Your task to perform on an android device: turn notification dots on Image 0: 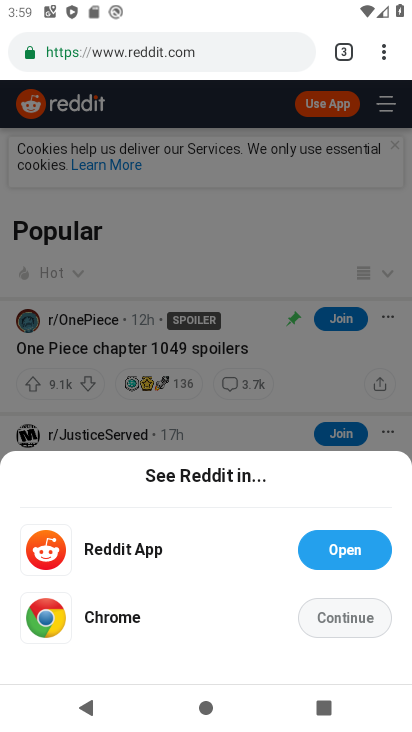
Step 0: press home button
Your task to perform on an android device: turn notification dots on Image 1: 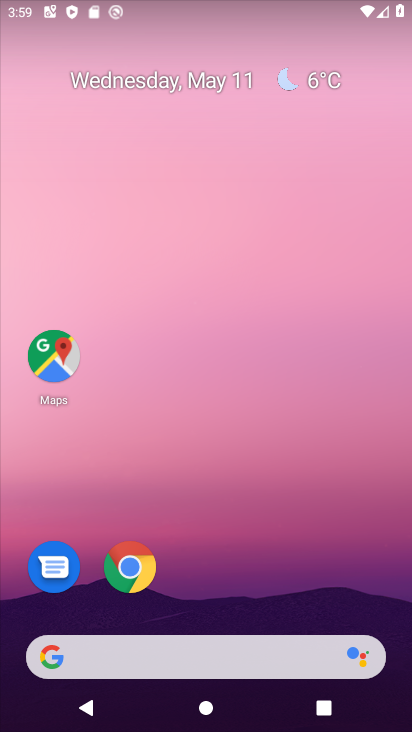
Step 1: drag from (293, 599) to (285, 193)
Your task to perform on an android device: turn notification dots on Image 2: 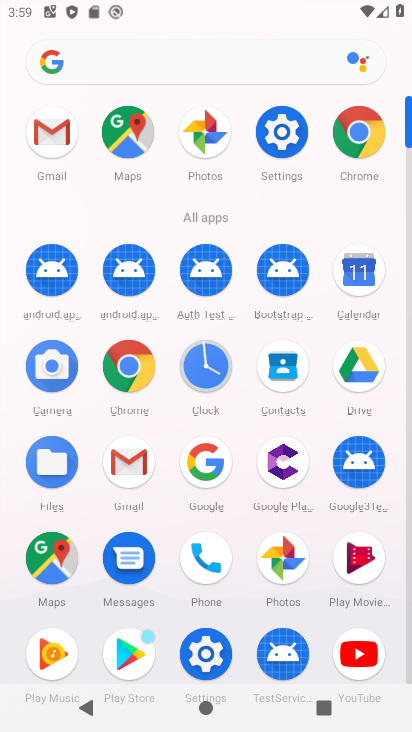
Step 2: click (282, 135)
Your task to perform on an android device: turn notification dots on Image 3: 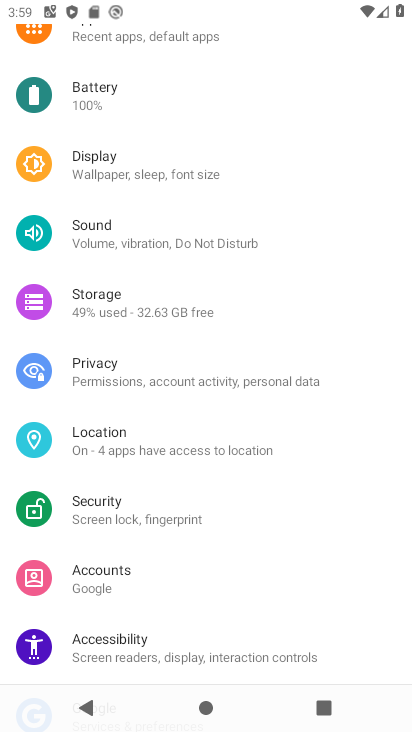
Step 3: drag from (183, 130) to (208, 636)
Your task to perform on an android device: turn notification dots on Image 4: 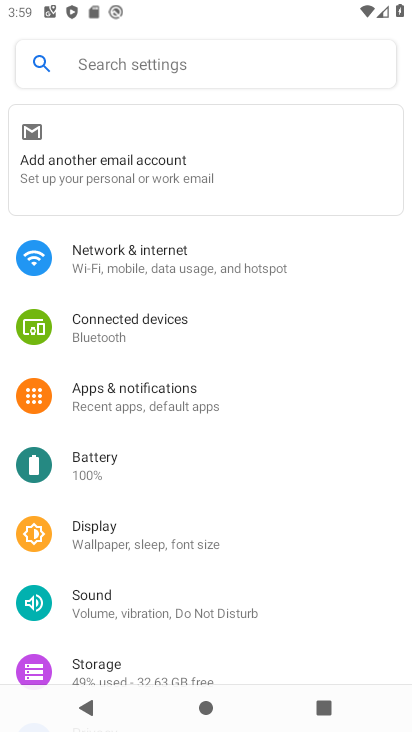
Step 4: click (172, 47)
Your task to perform on an android device: turn notification dots on Image 5: 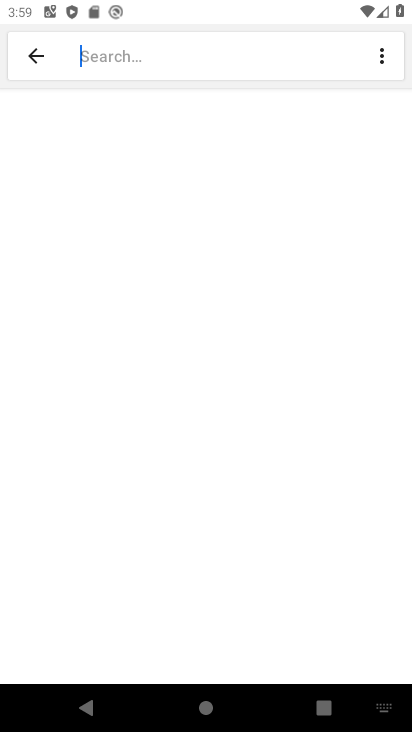
Step 5: click (145, 47)
Your task to perform on an android device: turn notification dots on Image 6: 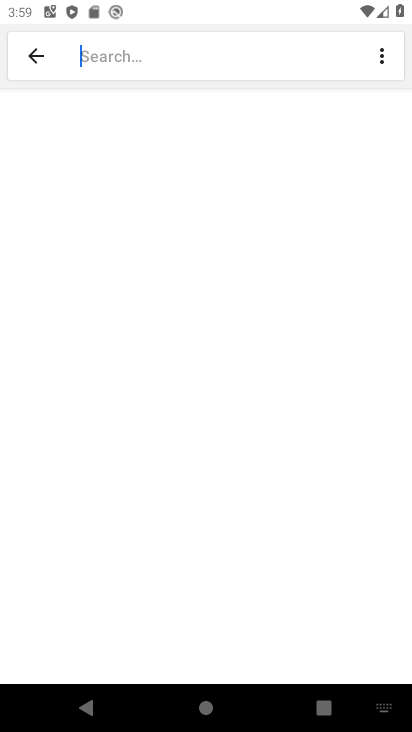
Step 6: type "notification dots"
Your task to perform on an android device: turn notification dots on Image 7: 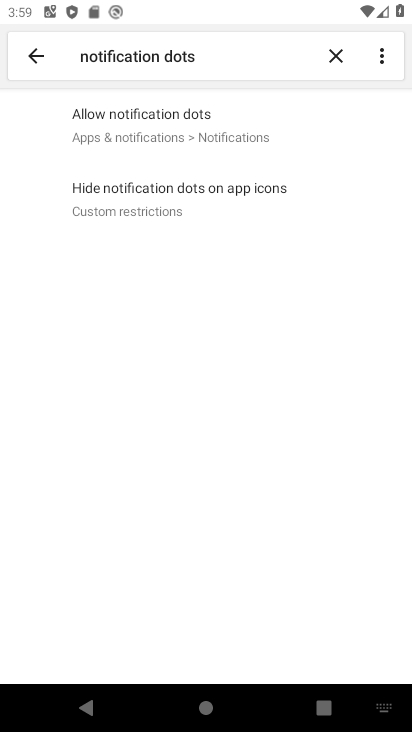
Step 7: click (214, 107)
Your task to perform on an android device: turn notification dots on Image 8: 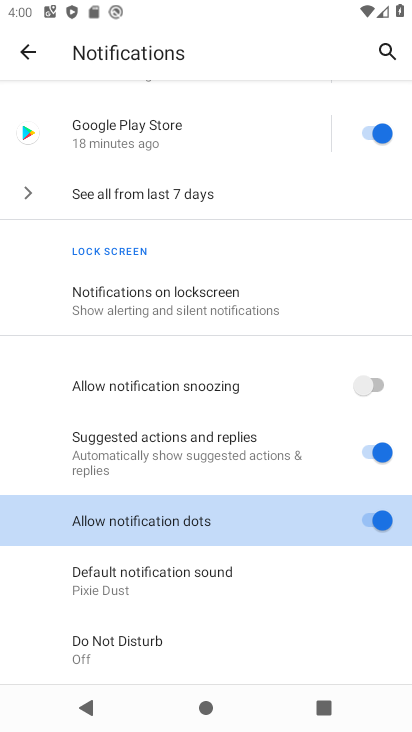
Step 8: task complete